Your task to perform on an android device: turn on the 24-hour format for clock Image 0: 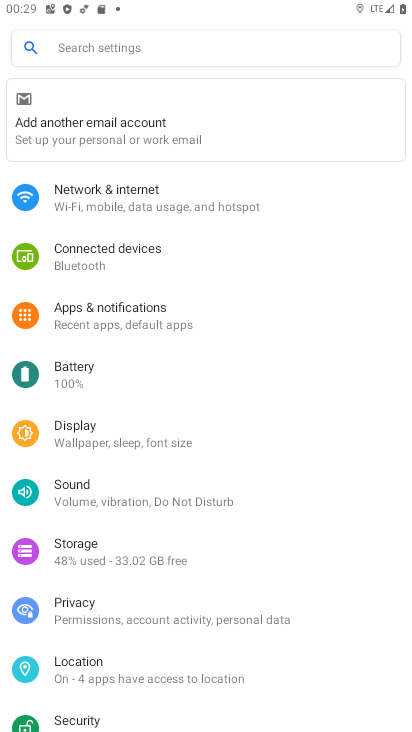
Step 0: press home button
Your task to perform on an android device: turn on the 24-hour format for clock Image 1: 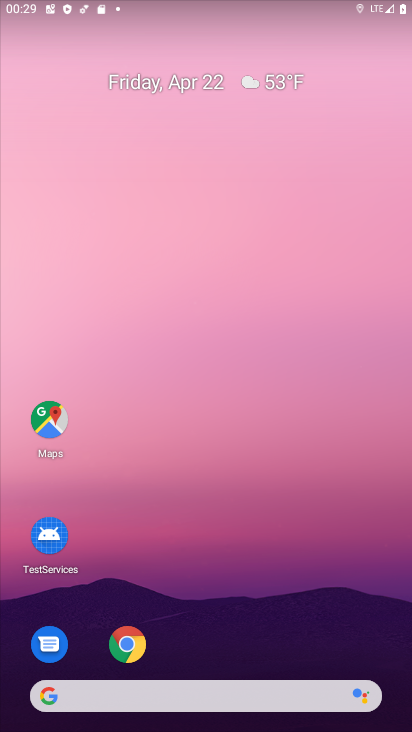
Step 1: drag from (270, 477) to (325, 105)
Your task to perform on an android device: turn on the 24-hour format for clock Image 2: 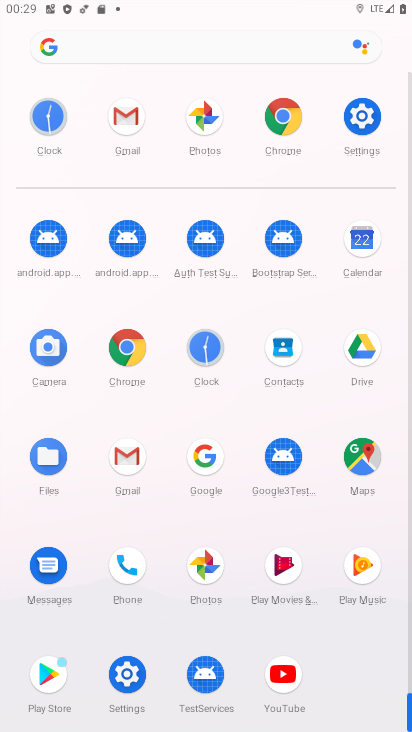
Step 2: click (206, 355)
Your task to perform on an android device: turn on the 24-hour format for clock Image 3: 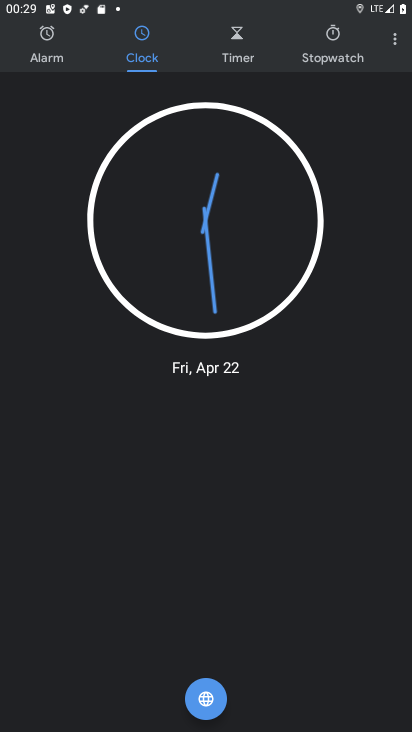
Step 3: click (394, 36)
Your task to perform on an android device: turn on the 24-hour format for clock Image 4: 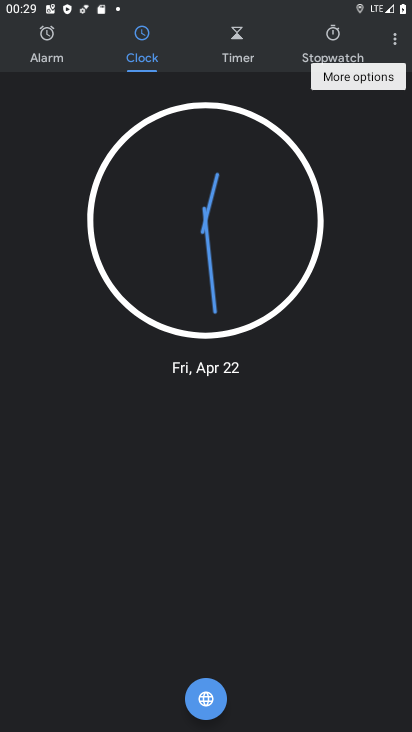
Step 4: click (395, 35)
Your task to perform on an android device: turn on the 24-hour format for clock Image 5: 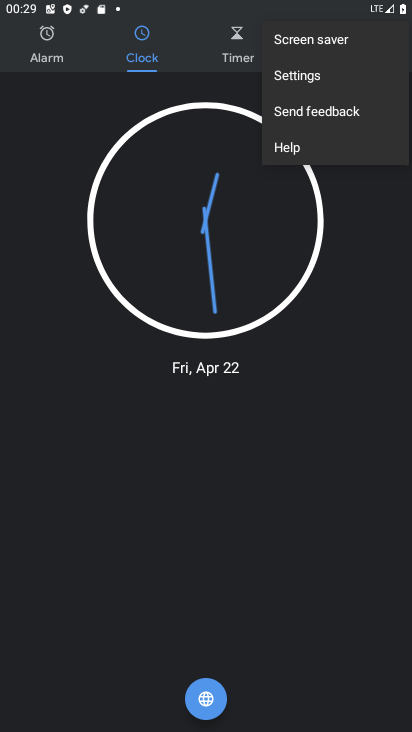
Step 5: click (329, 77)
Your task to perform on an android device: turn on the 24-hour format for clock Image 6: 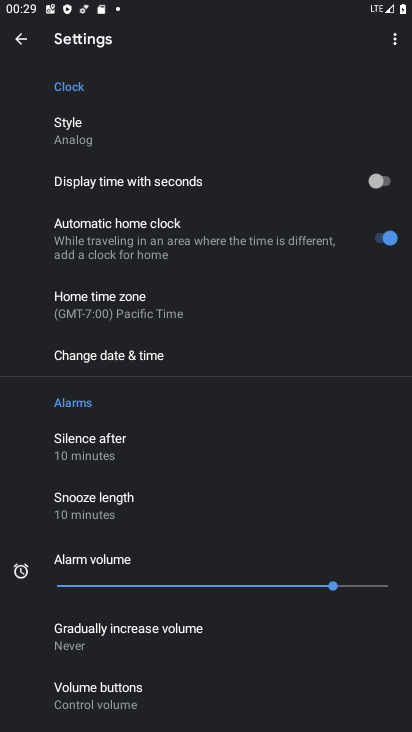
Step 6: click (100, 353)
Your task to perform on an android device: turn on the 24-hour format for clock Image 7: 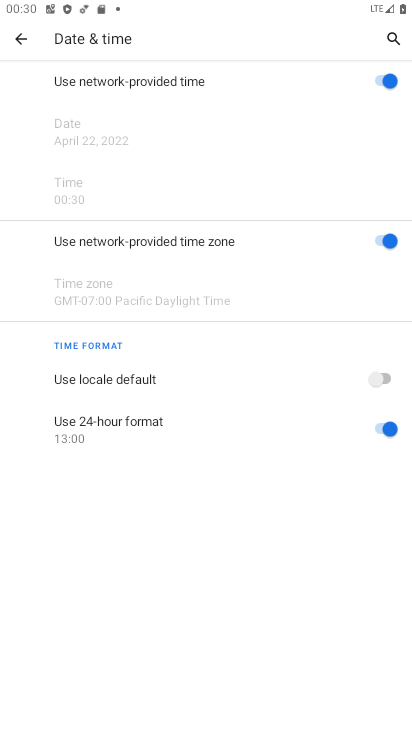
Step 7: task complete